Your task to perform on an android device: What's the latest news in astrophysics? Image 0: 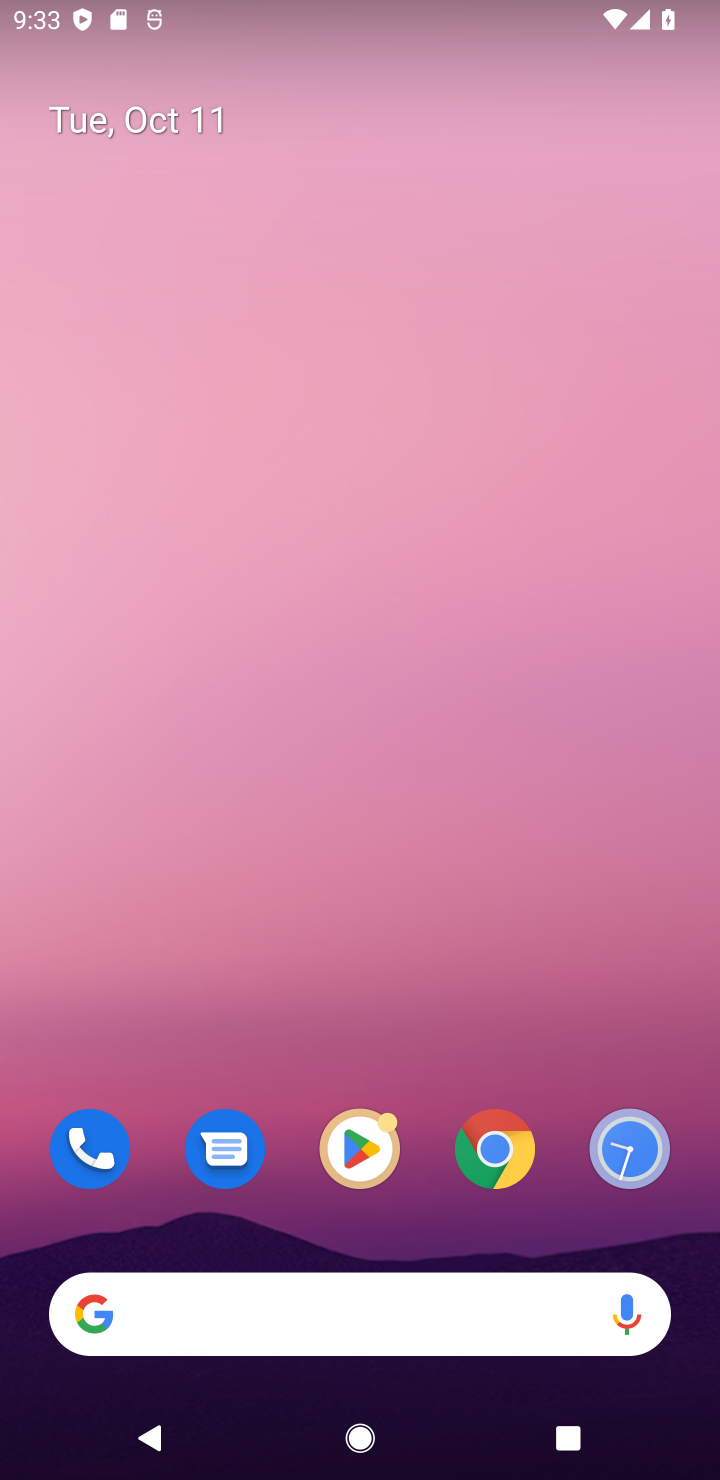
Step 0: drag from (290, 864) to (210, 199)
Your task to perform on an android device: What's the latest news in astrophysics? Image 1: 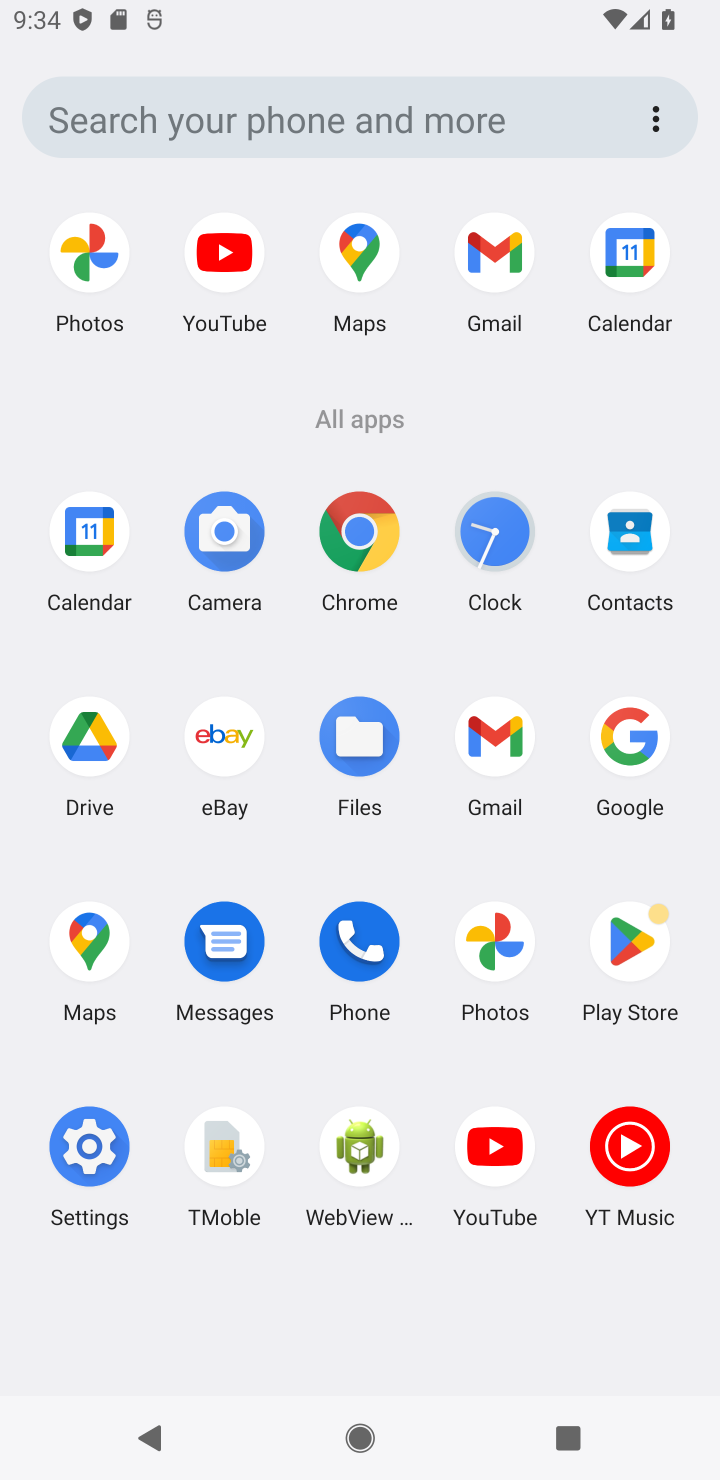
Step 1: click (637, 750)
Your task to perform on an android device: What's the latest news in astrophysics? Image 2: 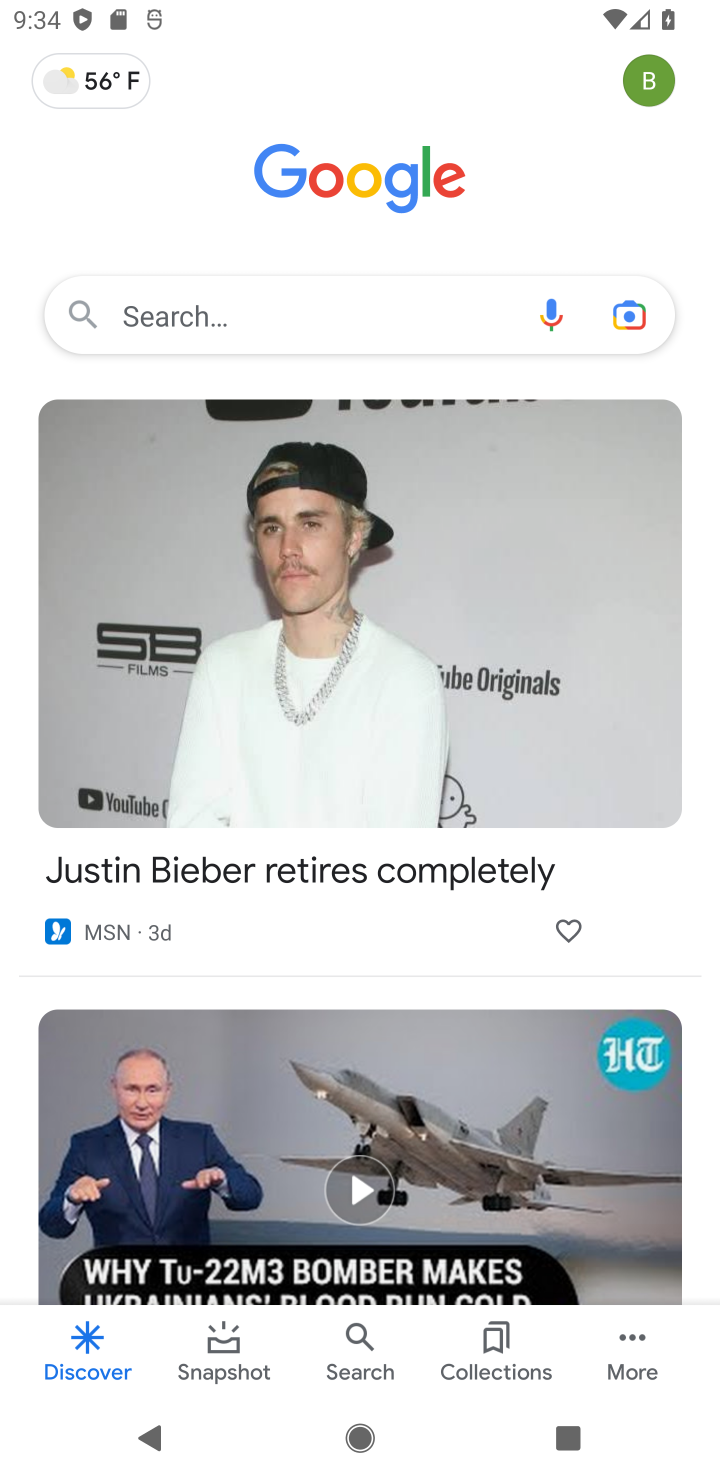
Step 2: click (317, 308)
Your task to perform on an android device: What's the latest news in astrophysics? Image 3: 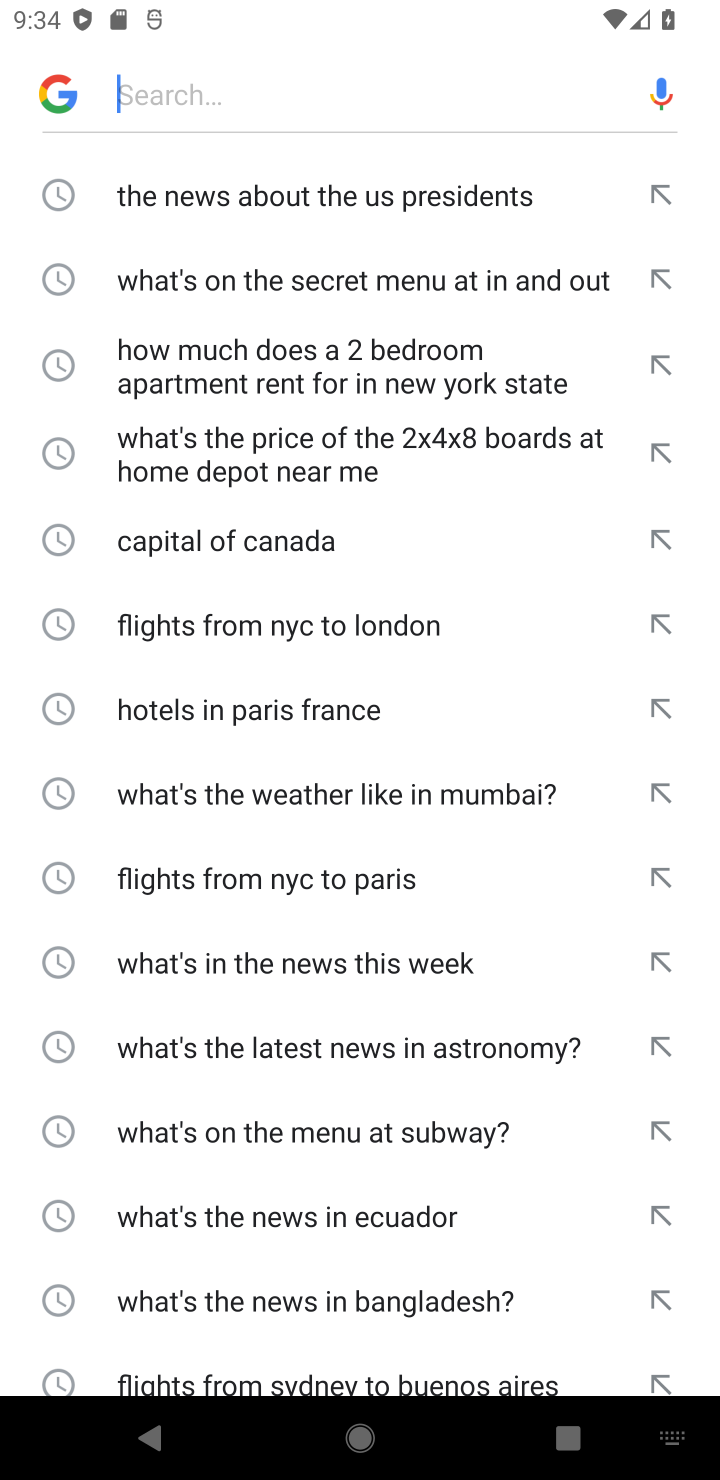
Step 3: type "What's the latest news in astrophysics?"
Your task to perform on an android device: What's the latest news in astrophysics? Image 4: 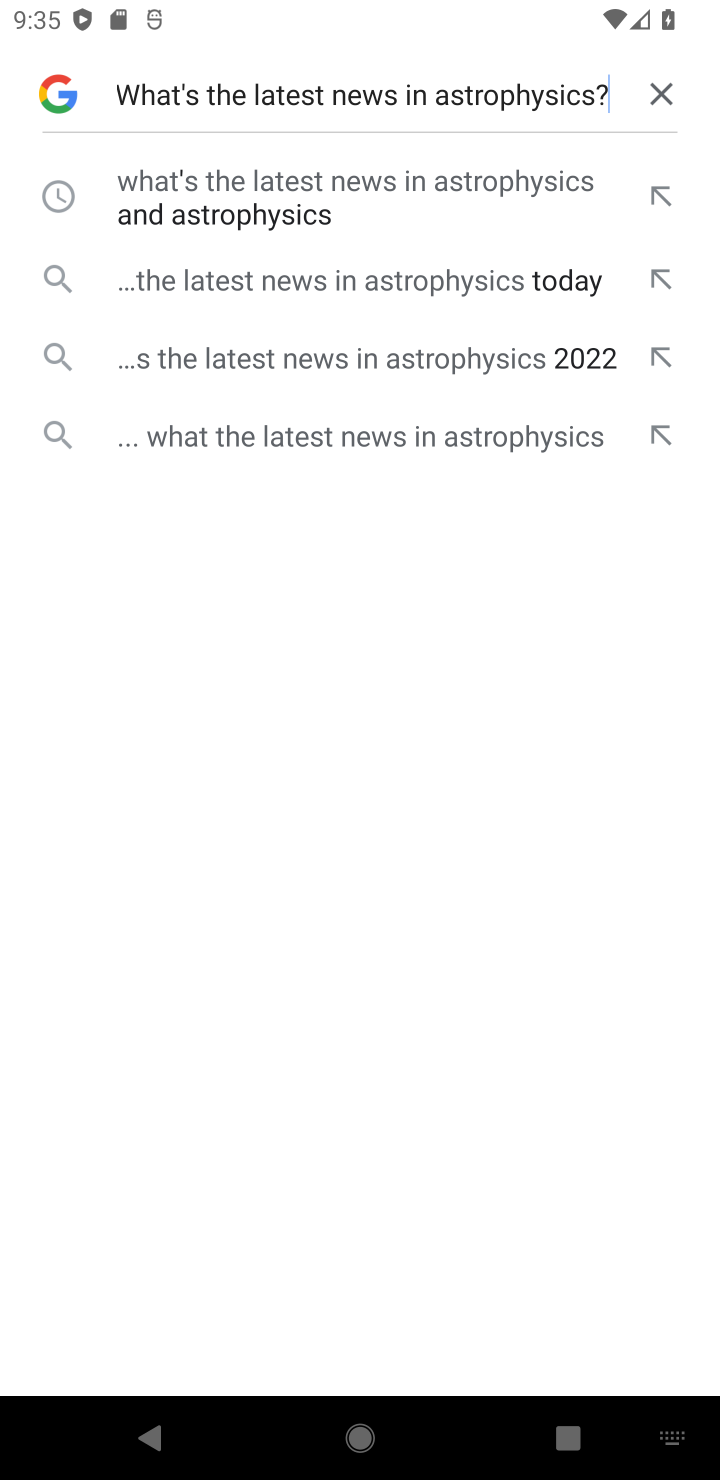
Step 4: click (313, 203)
Your task to perform on an android device: What's the latest news in astrophysics? Image 5: 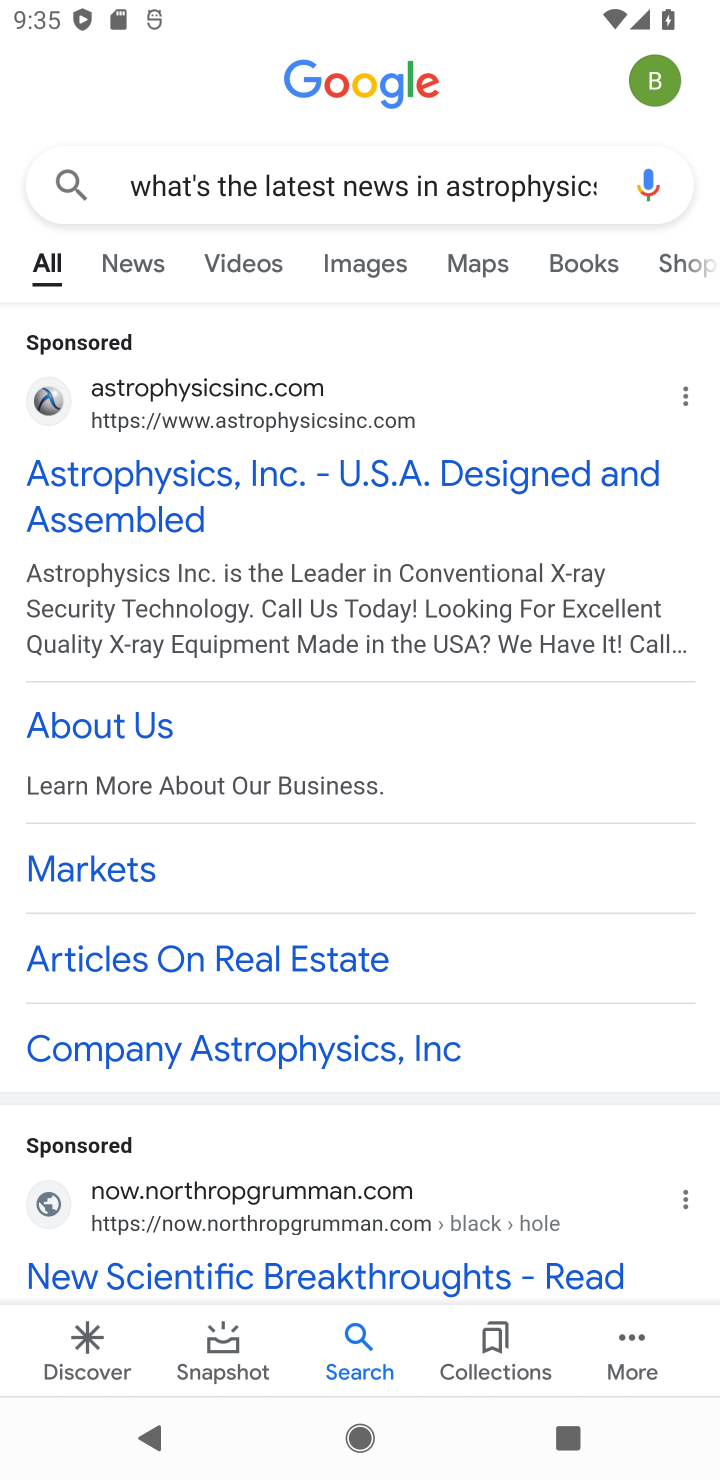
Step 5: task complete